Your task to perform on an android device: Open internet settings Image 0: 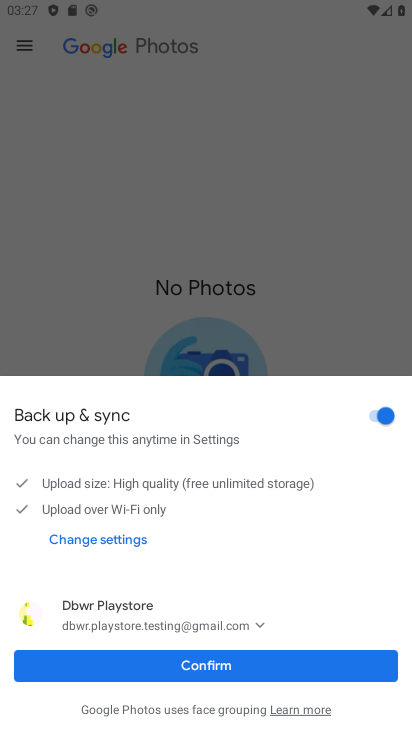
Step 0: press home button
Your task to perform on an android device: Open internet settings Image 1: 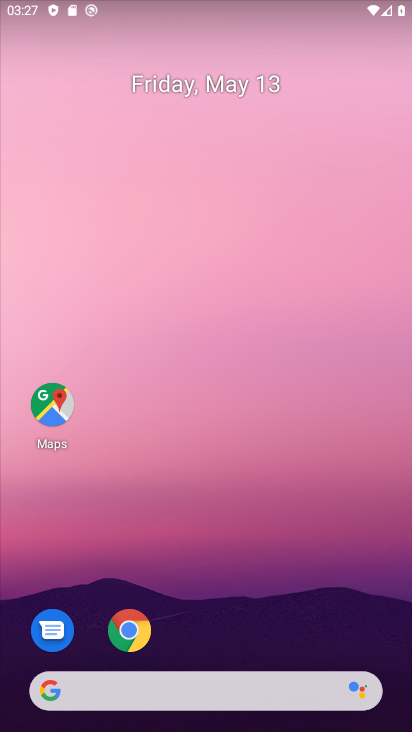
Step 1: drag from (222, 662) to (157, 150)
Your task to perform on an android device: Open internet settings Image 2: 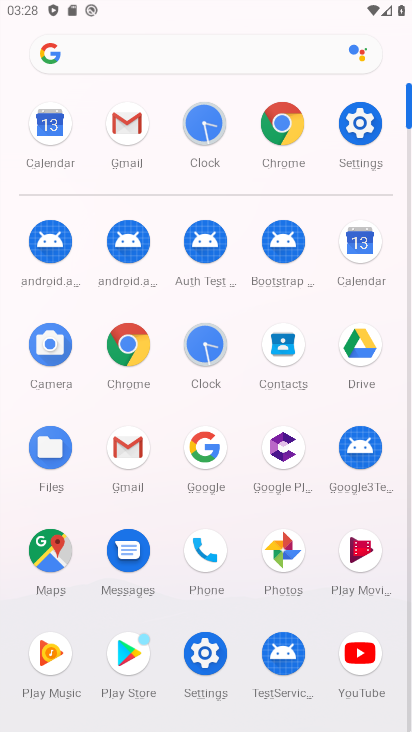
Step 2: click (354, 122)
Your task to perform on an android device: Open internet settings Image 3: 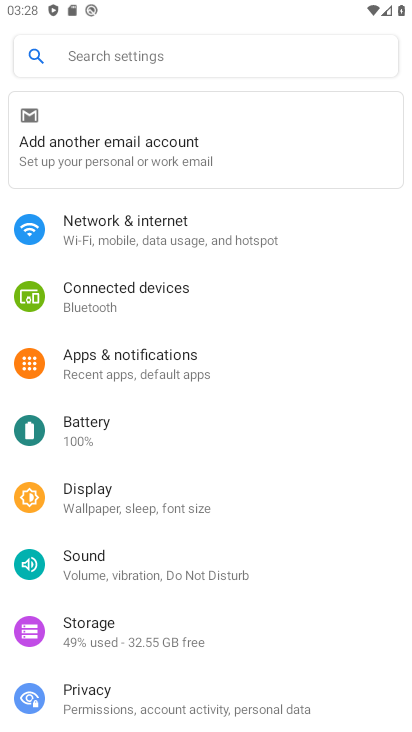
Step 3: click (159, 236)
Your task to perform on an android device: Open internet settings Image 4: 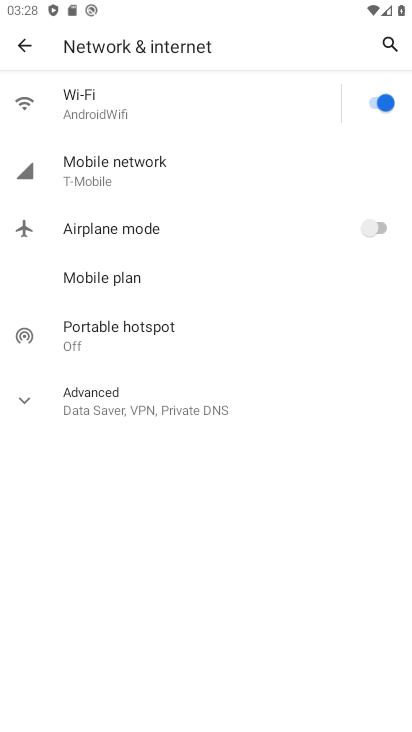
Step 4: click (113, 178)
Your task to perform on an android device: Open internet settings Image 5: 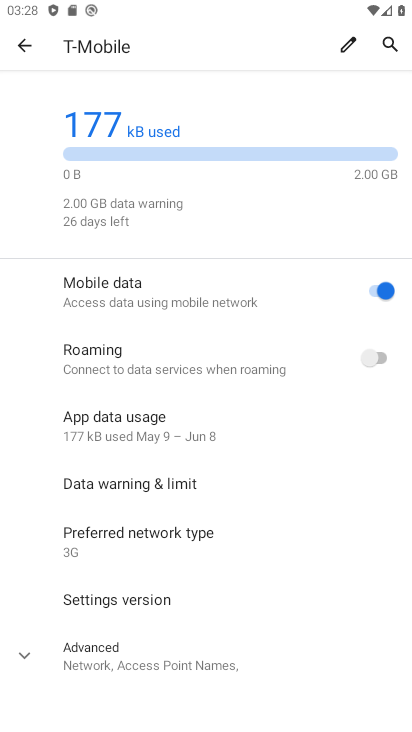
Step 5: task complete